Your task to perform on an android device: turn pop-ups on in chrome Image 0: 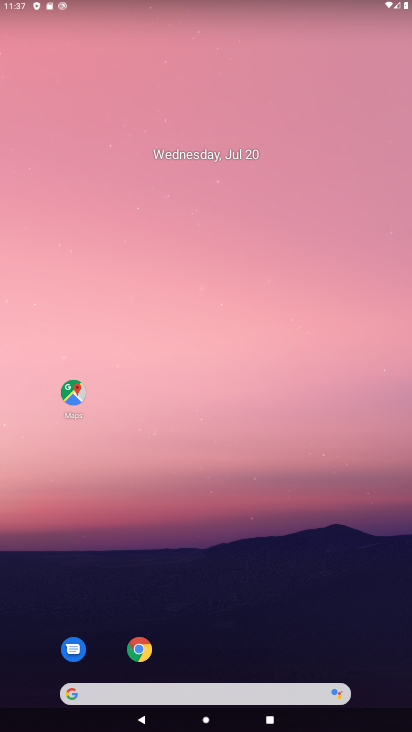
Step 0: click (143, 650)
Your task to perform on an android device: turn pop-ups on in chrome Image 1: 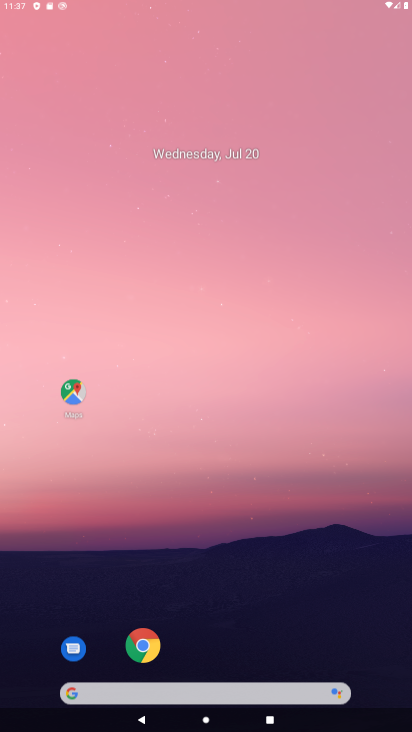
Step 1: task complete